Your task to perform on an android device: Open Google Maps and go to "Timeline" Image 0: 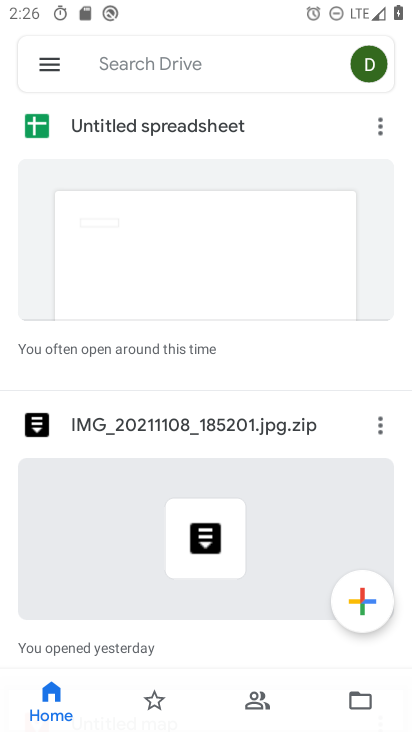
Step 0: press home button
Your task to perform on an android device: Open Google Maps and go to "Timeline" Image 1: 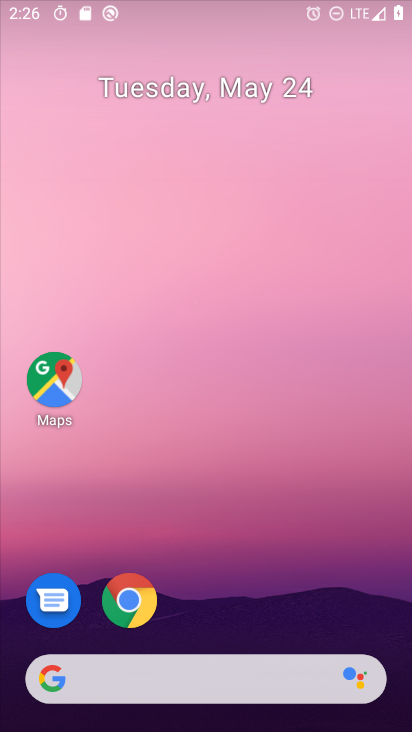
Step 1: drag from (301, 584) to (315, 169)
Your task to perform on an android device: Open Google Maps and go to "Timeline" Image 2: 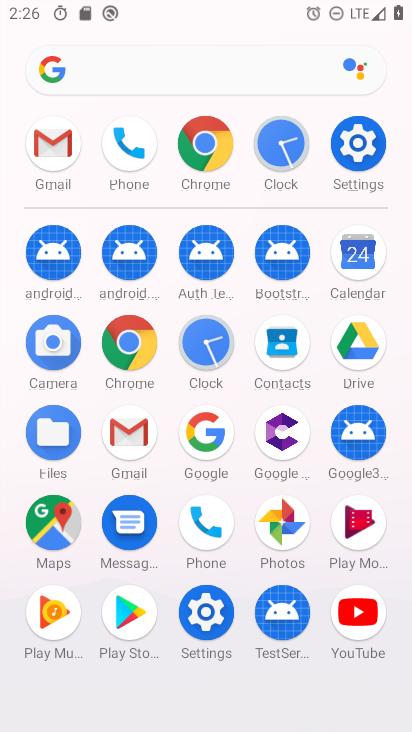
Step 2: click (64, 519)
Your task to perform on an android device: Open Google Maps and go to "Timeline" Image 3: 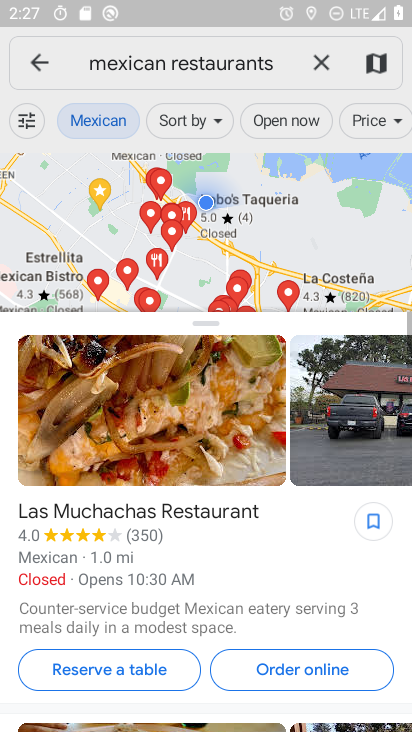
Step 3: click (35, 65)
Your task to perform on an android device: Open Google Maps and go to "Timeline" Image 4: 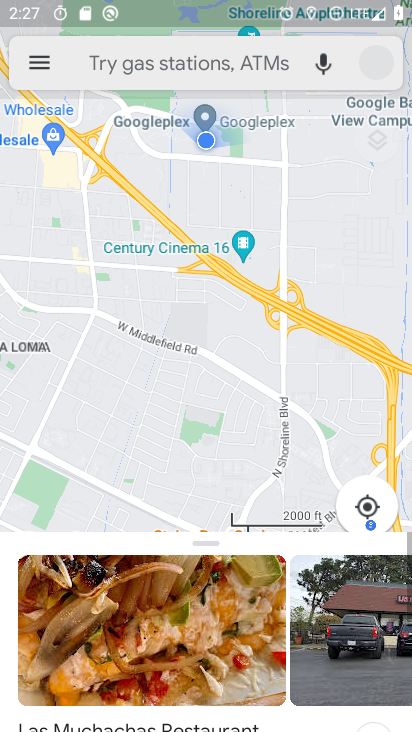
Step 4: click (37, 58)
Your task to perform on an android device: Open Google Maps and go to "Timeline" Image 5: 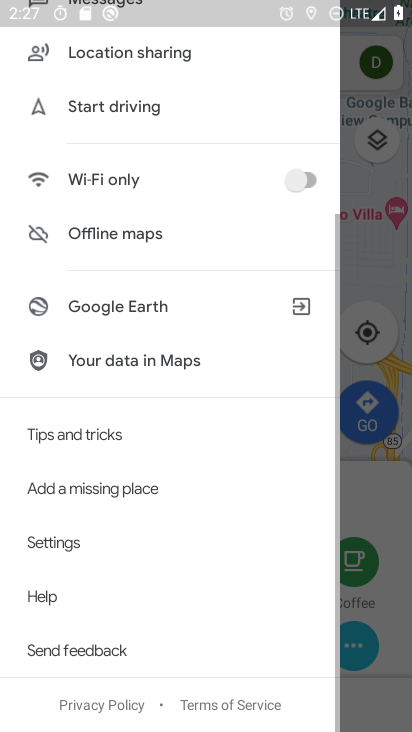
Step 5: drag from (160, 224) to (167, 639)
Your task to perform on an android device: Open Google Maps and go to "Timeline" Image 6: 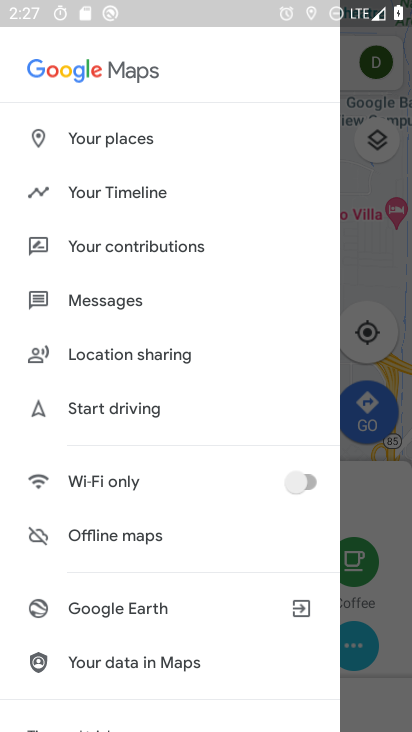
Step 6: click (133, 201)
Your task to perform on an android device: Open Google Maps and go to "Timeline" Image 7: 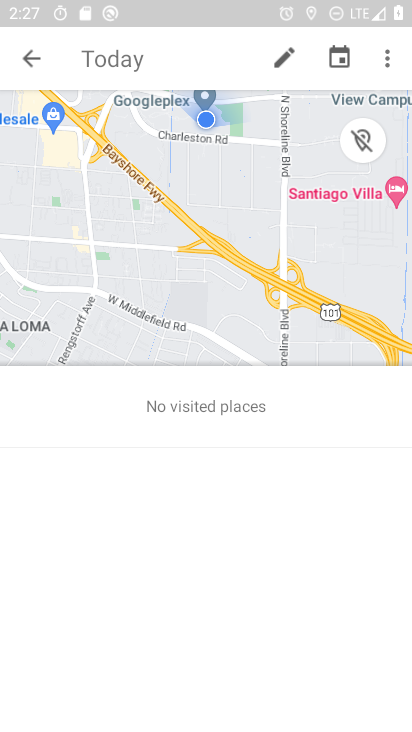
Step 7: task complete